Your task to perform on an android device: toggle javascript in the chrome app Image 0: 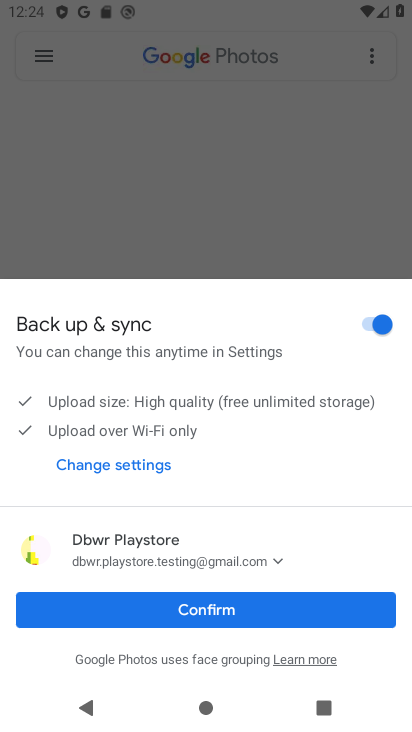
Step 0: press home button
Your task to perform on an android device: toggle javascript in the chrome app Image 1: 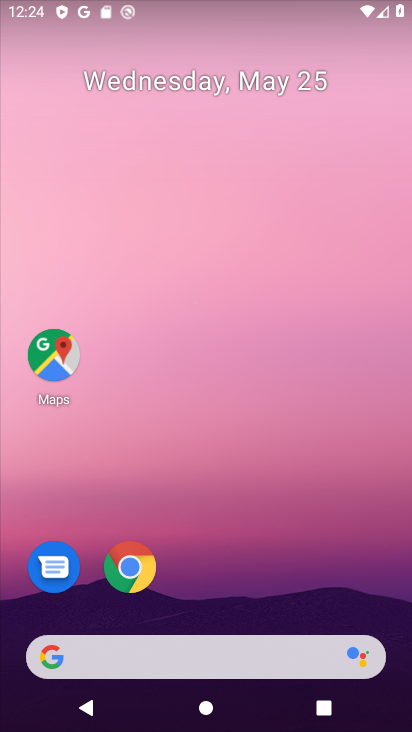
Step 1: click (131, 565)
Your task to perform on an android device: toggle javascript in the chrome app Image 2: 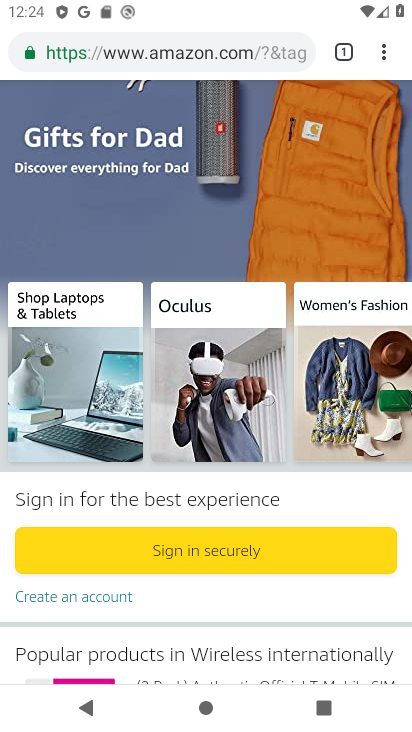
Step 2: click (383, 53)
Your task to perform on an android device: toggle javascript in the chrome app Image 3: 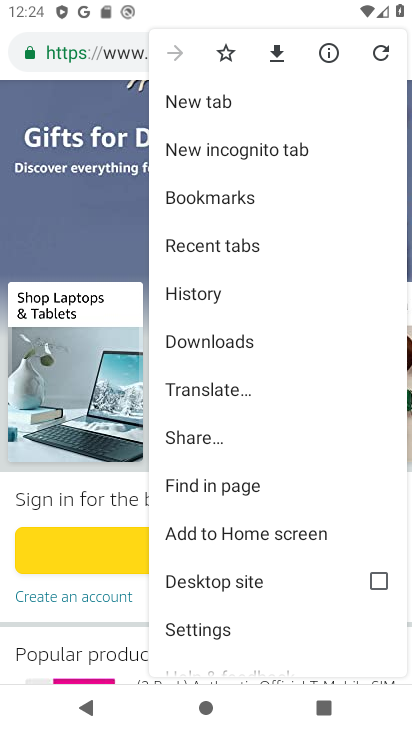
Step 3: drag from (282, 483) to (299, 401)
Your task to perform on an android device: toggle javascript in the chrome app Image 4: 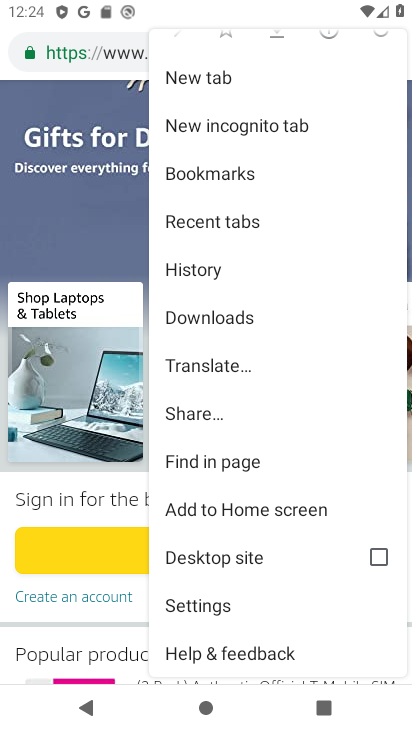
Step 4: click (204, 596)
Your task to perform on an android device: toggle javascript in the chrome app Image 5: 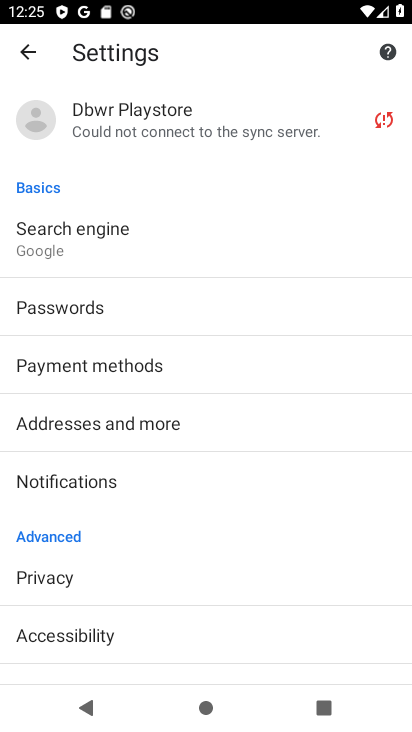
Step 5: drag from (150, 501) to (192, 435)
Your task to perform on an android device: toggle javascript in the chrome app Image 6: 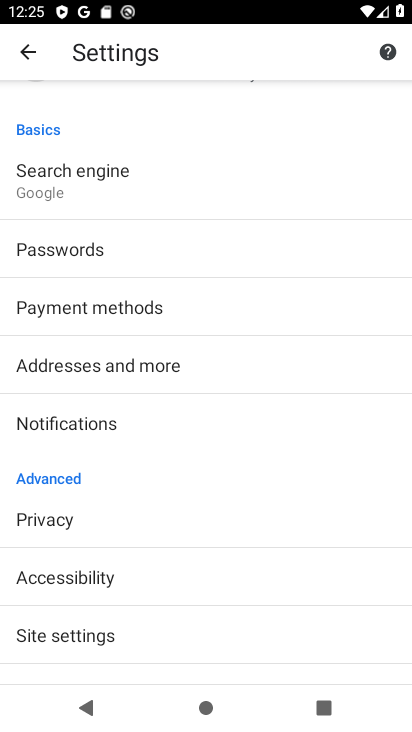
Step 6: drag from (137, 561) to (158, 470)
Your task to perform on an android device: toggle javascript in the chrome app Image 7: 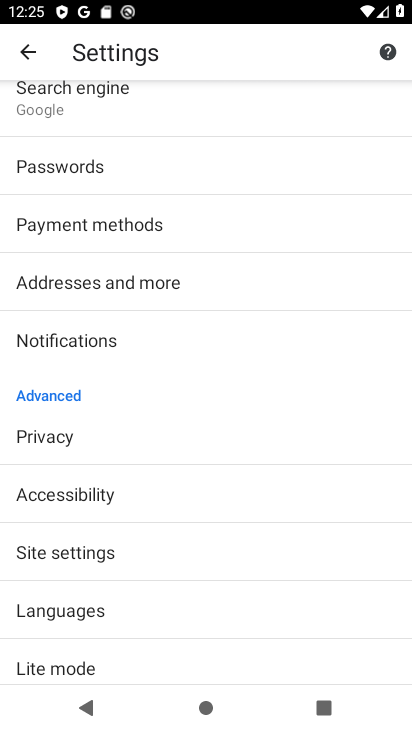
Step 7: click (77, 549)
Your task to perform on an android device: toggle javascript in the chrome app Image 8: 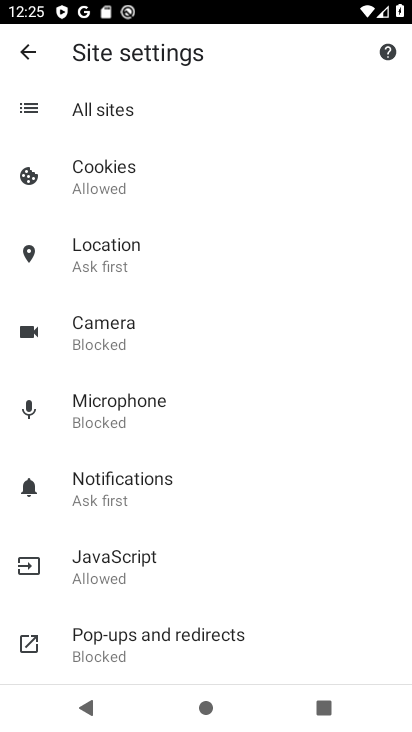
Step 8: click (101, 561)
Your task to perform on an android device: toggle javascript in the chrome app Image 9: 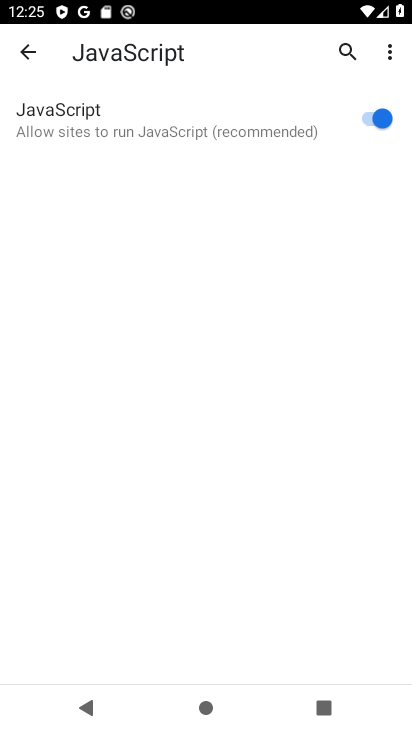
Step 9: click (369, 125)
Your task to perform on an android device: toggle javascript in the chrome app Image 10: 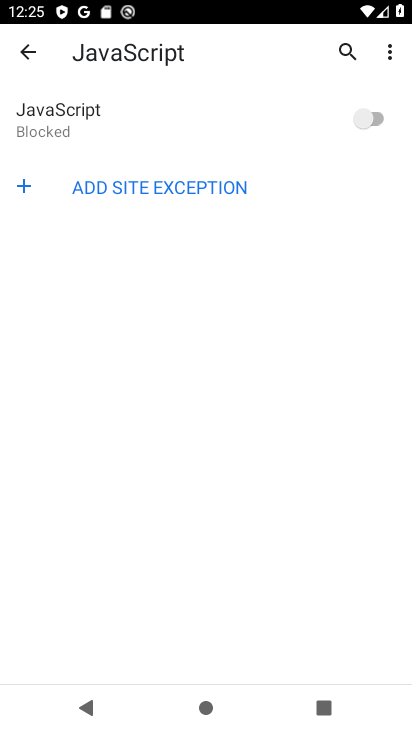
Step 10: task complete